Your task to perform on an android device: see creations saved in the google photos Image 0: 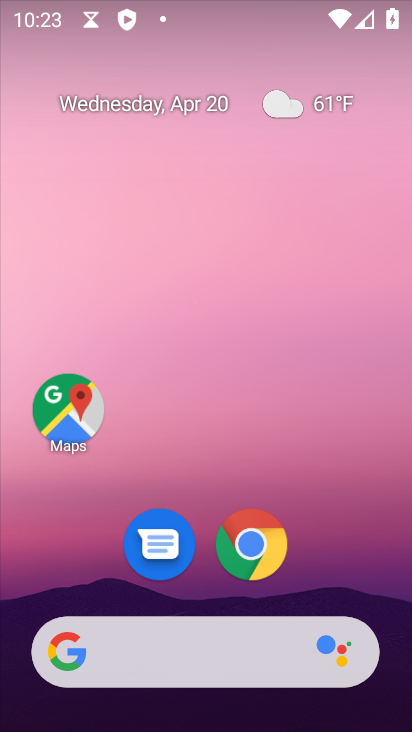
Step 0: click (321, 72)
Your task to perform on an android device: see creations saved in the google photos Image 1: 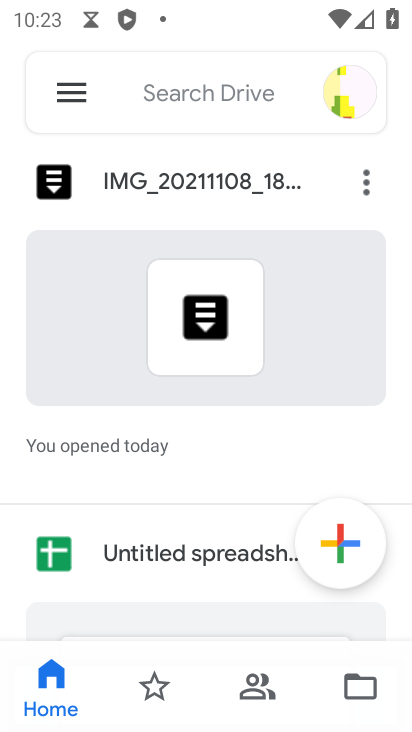
Step 1: press home button
Your task to perform on an android device: see creations saved in the google photos Image 2: 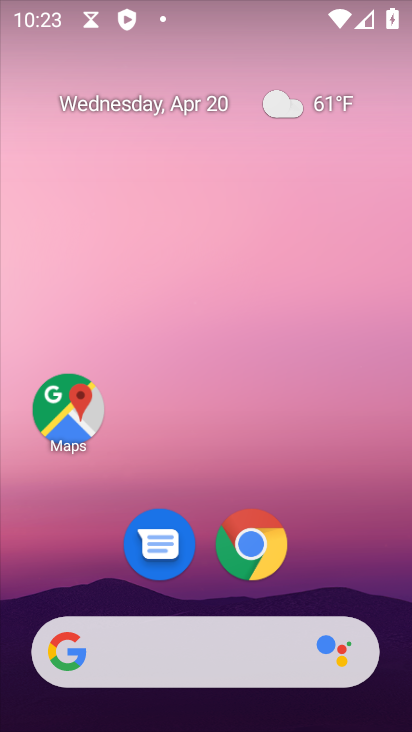
Step 2: drag from (182, 668) to (338, 53)
Your task to perform on an android device: see creations saved in the google photos Image 3: 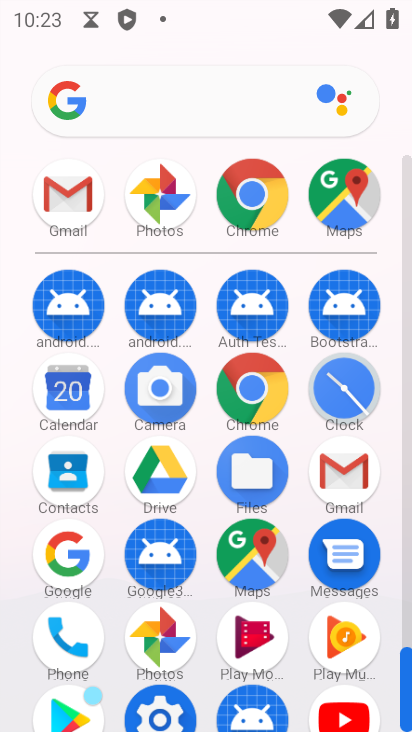
Step 3: click (167, 205)
Your task to perform on an android device: see creations saved in the google photos Image 4: 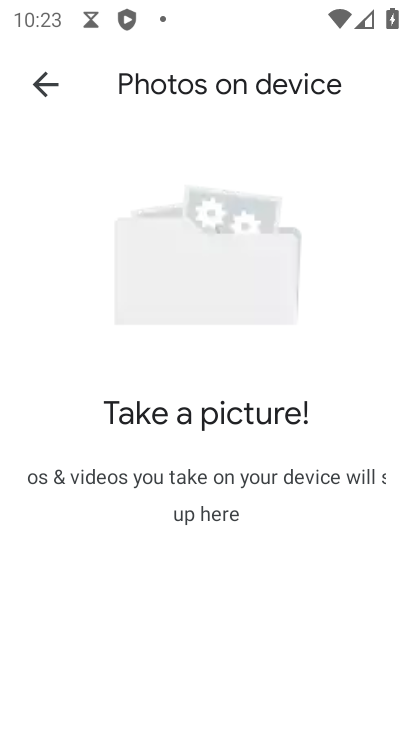
Step 4: click (46, 84)
Your task to perform on an android device: see creations saved in the google photos Image 5: 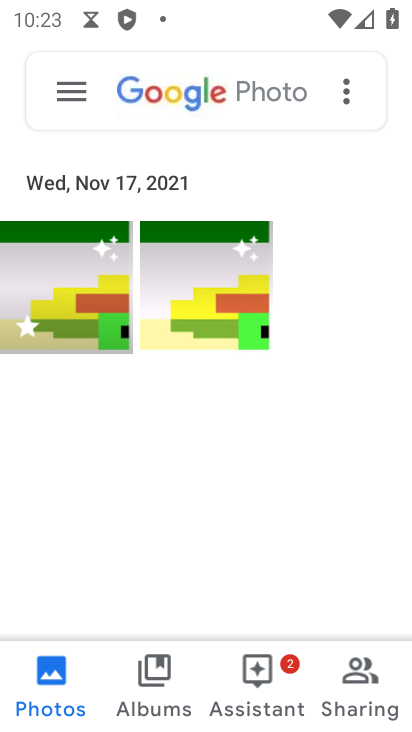
Step 5: click (155, 681)
Your task to perform on an android device: see creations saved in the google photos Image 6: 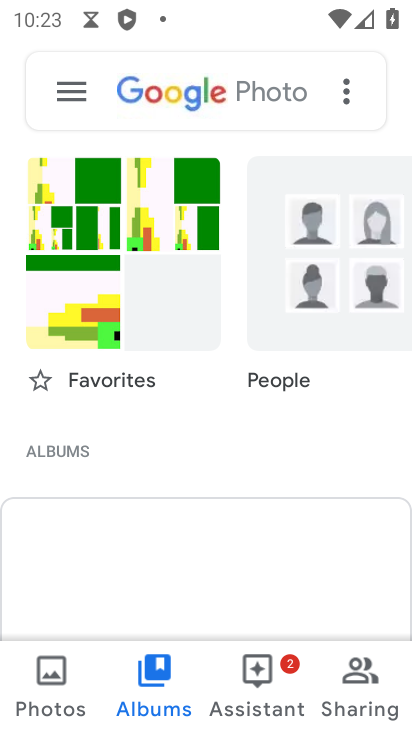
Step 6: click (240, 87)
Your task to perform on an android device: see creations saved in the google photos Image 7: 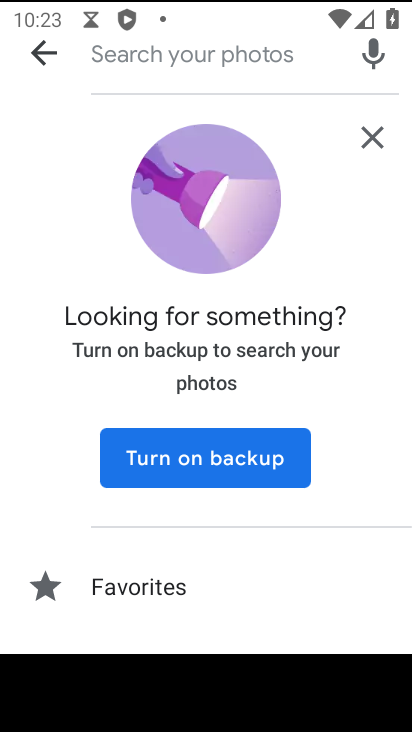
Step 7: drag from (197, 583) to (337, 43)
Your task to perform on an android device: see creations saved in the google photos Image 8: 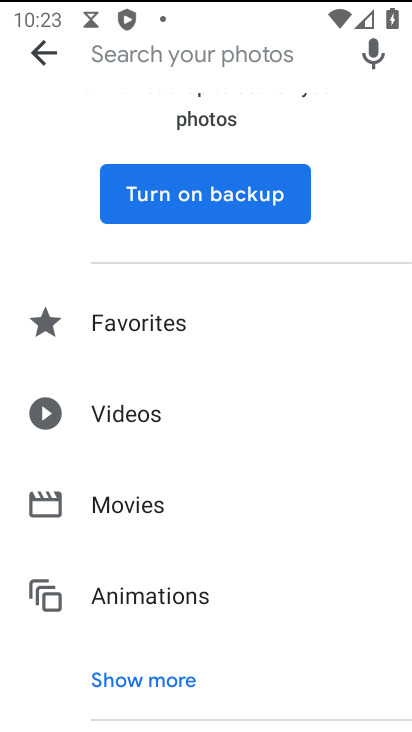
Step 8: click (137, 676)
Your task to perform on an android device: see creations saved in the google photos Image 9: 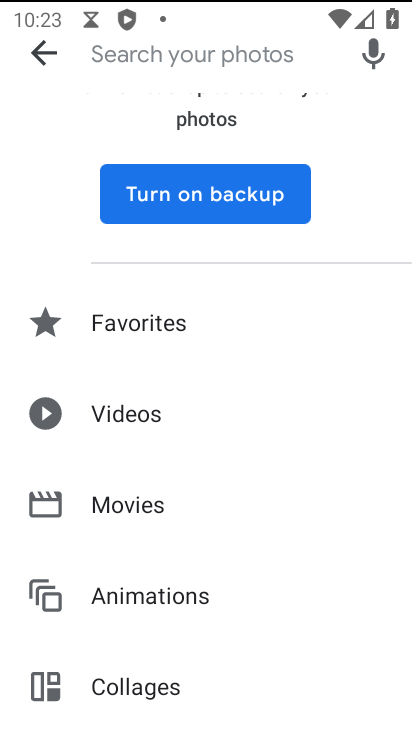
Step 9: drag from (188, 617) to (307, 133)
Your task to perform on an android device: see creations saved in the google photos Image 10: 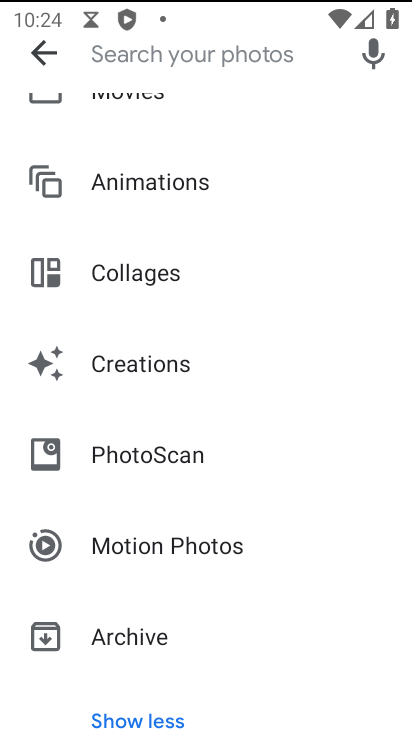
Step 10: click (131, 353)
Your task to perform on an android device: see creations saved in the google photos Image 11: 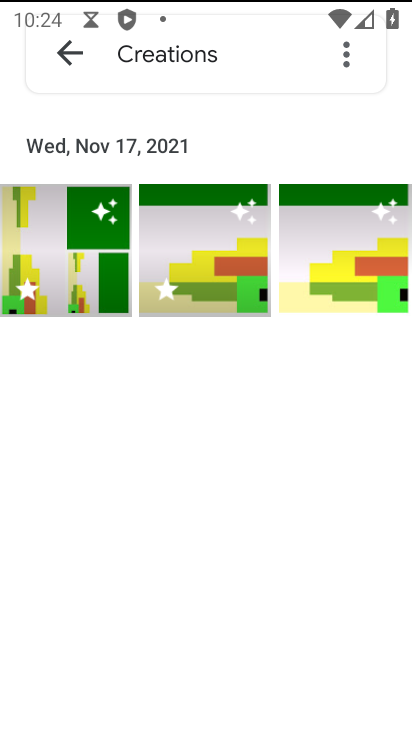
Step 11: task complete